Your task to perform on an android device: Go to internet settings Image 0: 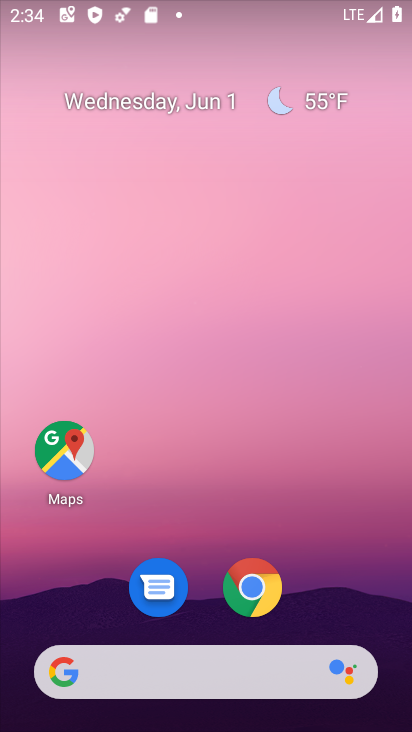
Step 0: drag from (224, 652) to (236, 209)
Your task to perform on an android device: Go to internet settings Image 1: 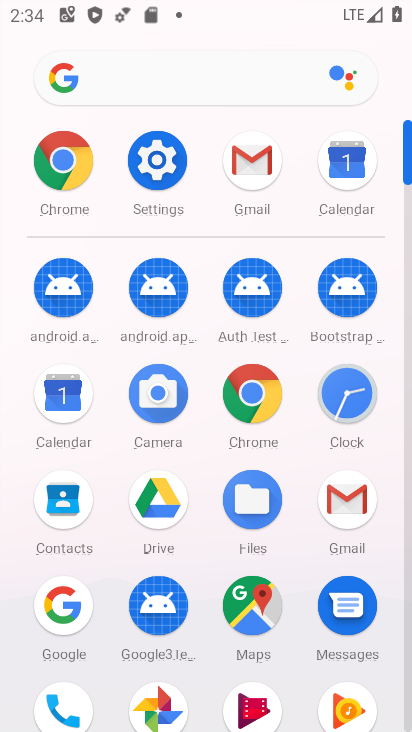
Step 1: click (153, 161)
Your task to perform on an android device: Go to internet settings Image 2: 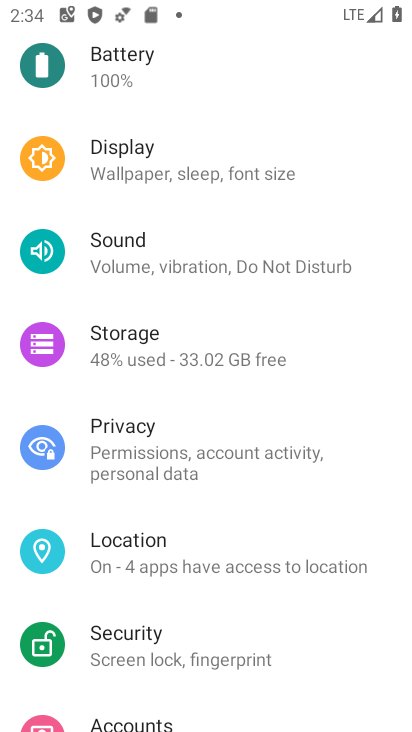
Step 2: drag from (153, 153) to (175, 723)
Your task to perform on an android device: Go to internet settings Image 3: 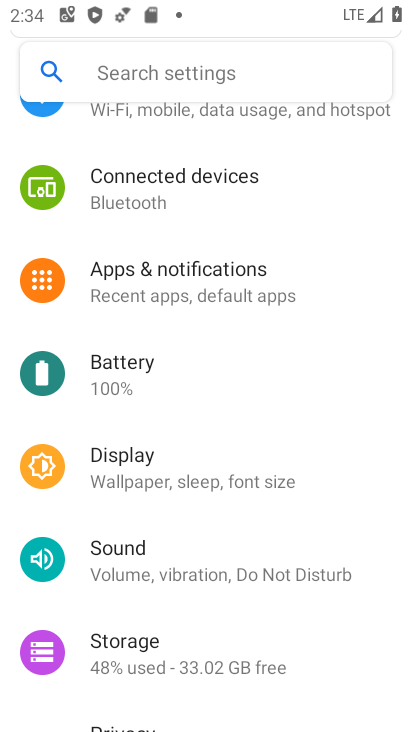
Step 3: drag from (168, 184) to (238, 686)
Your task to perform on an android device: Go to internet settings Image 4: 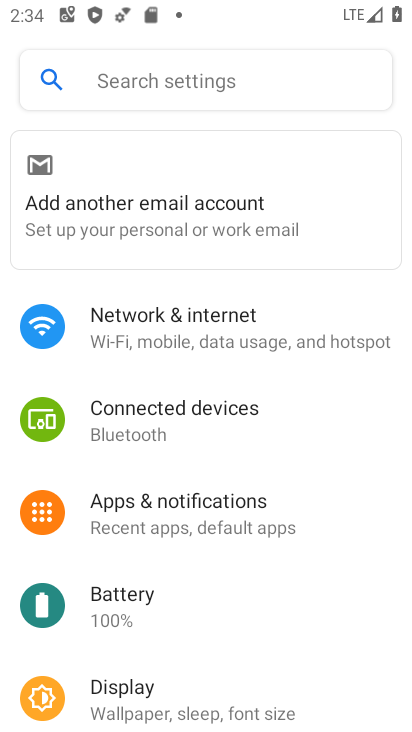
Step 4: click (168, 327)
Your task to perform on an android device: Go to internet settings Image 5: 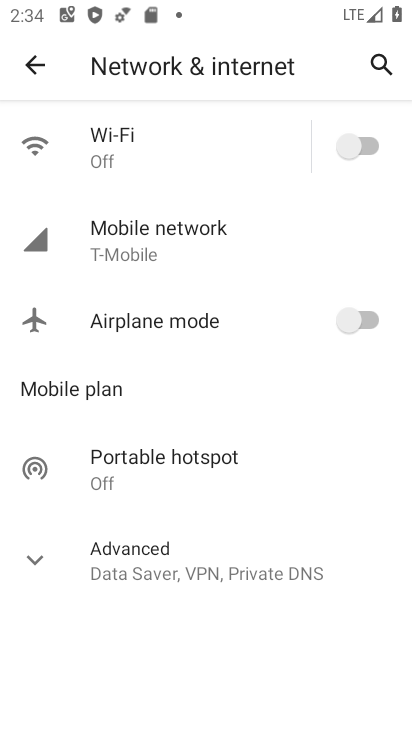
Step 5: task complete